Your task to perform on an android device: install app "Nova Launcher" Image 0: 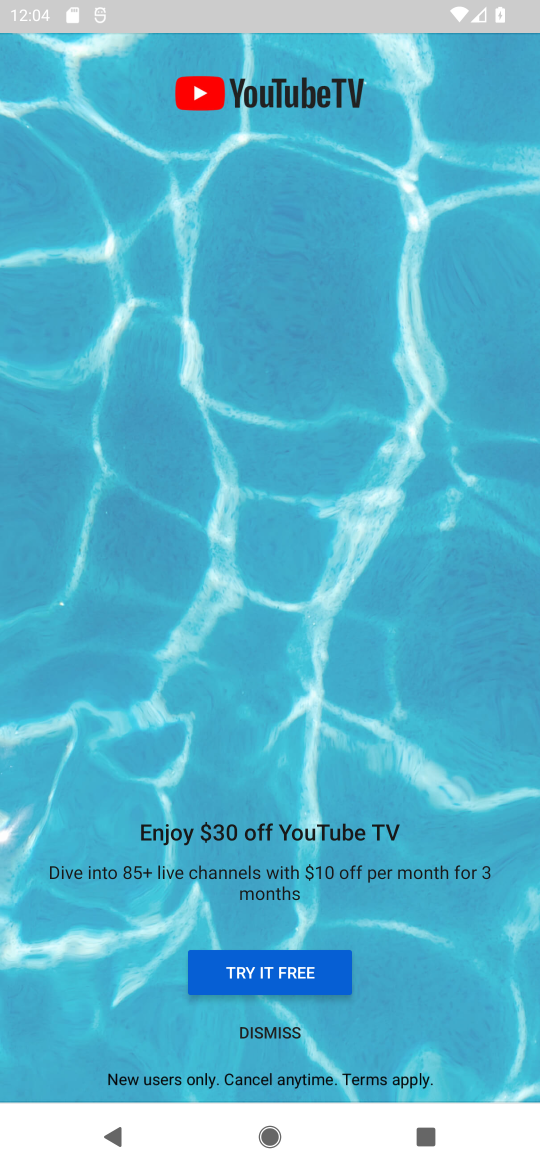
Step 0: press home button
Your task to perform on an android device: install app "Nova Launcher" Image 1: 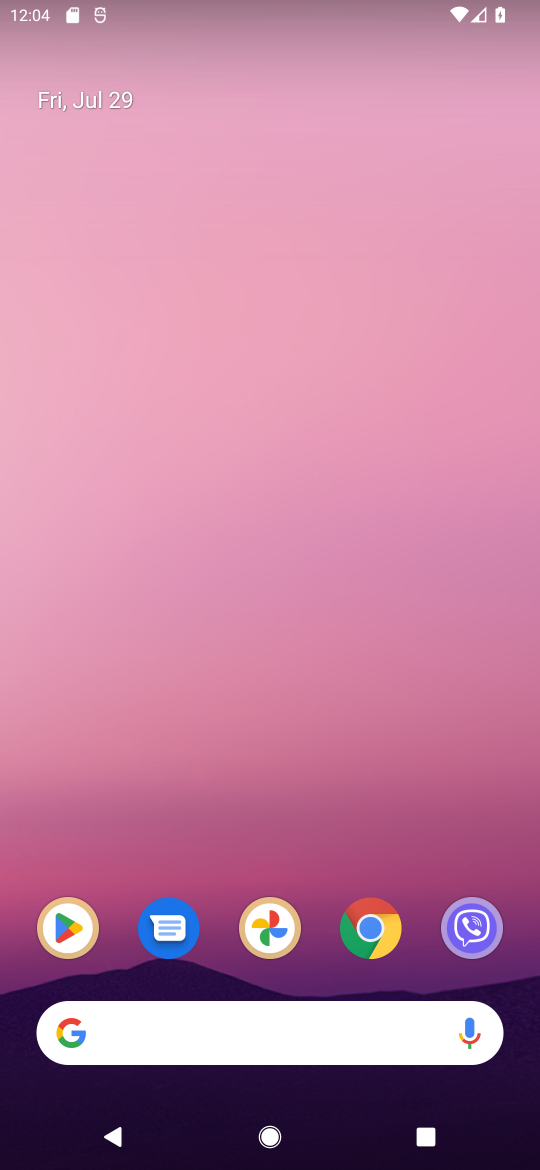
Step 1: drag from (411, 734) to (362, 86)
Your task to perform on an android device: install app "Nova Launcher" Image 2: 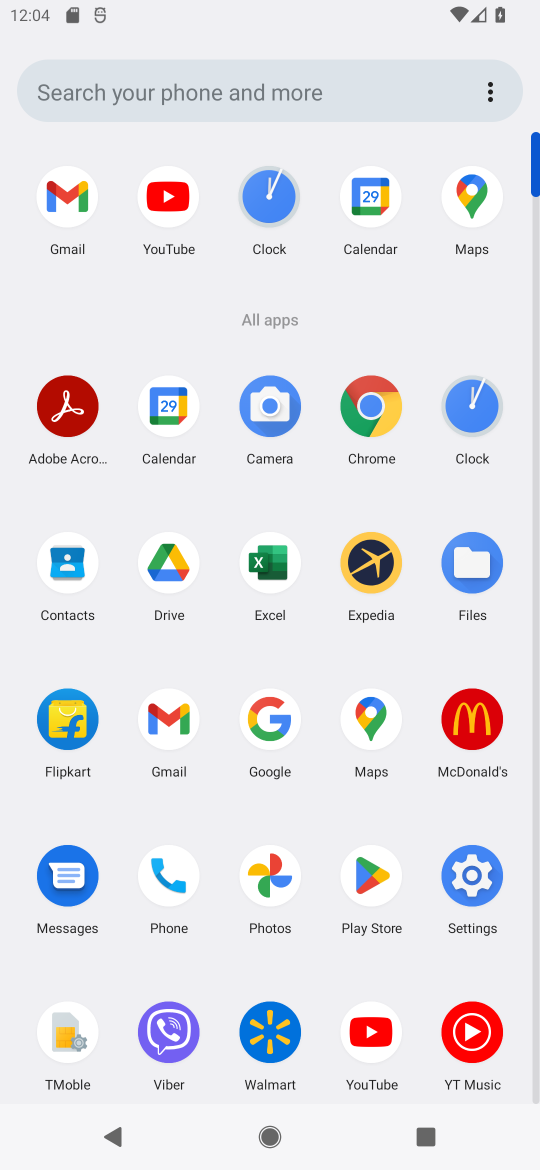
Step 2: click (358, 871)
Your task to perform on an android device: install app "Nova Launcher" Image 3: 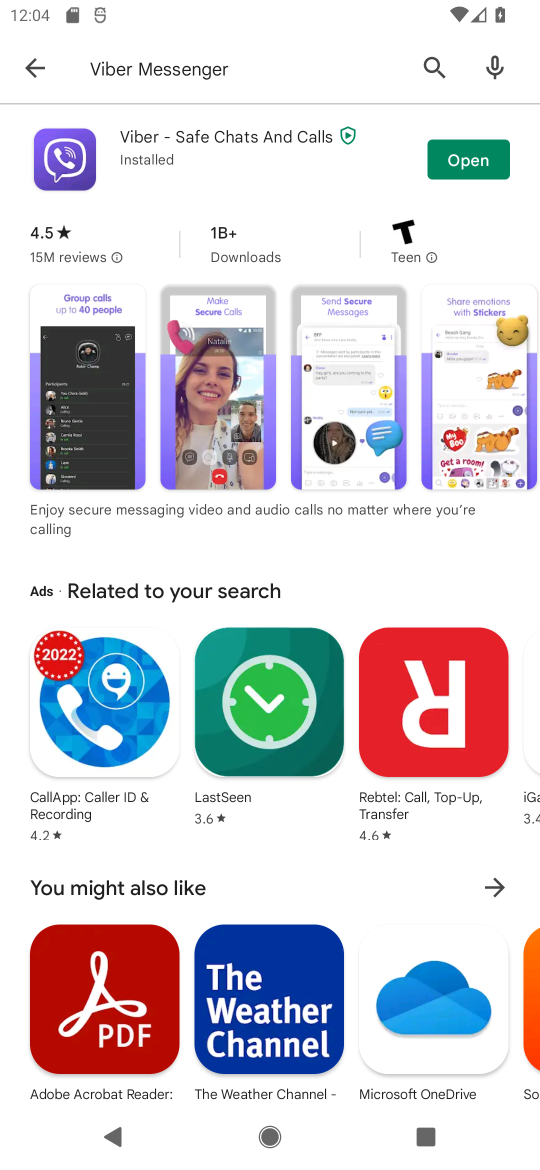
Step 3: click (215, 63)
Your task to perform on an android device: install app "Nova Launcher" Image 4: 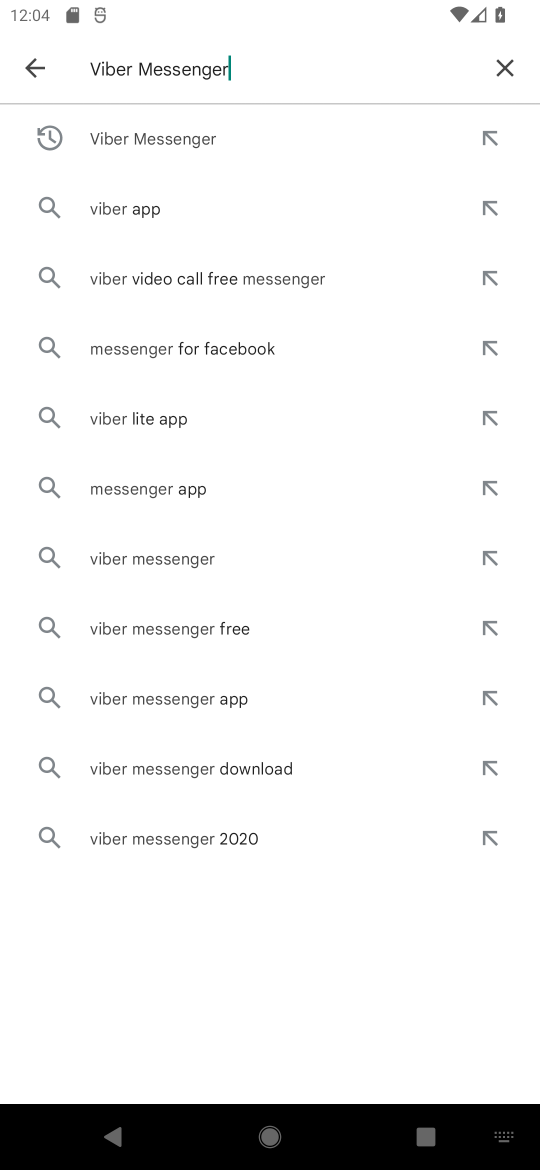
Step 4: click (513, 58)
Your task to perform on an android device: install app "Nova Launcher" Image 5: 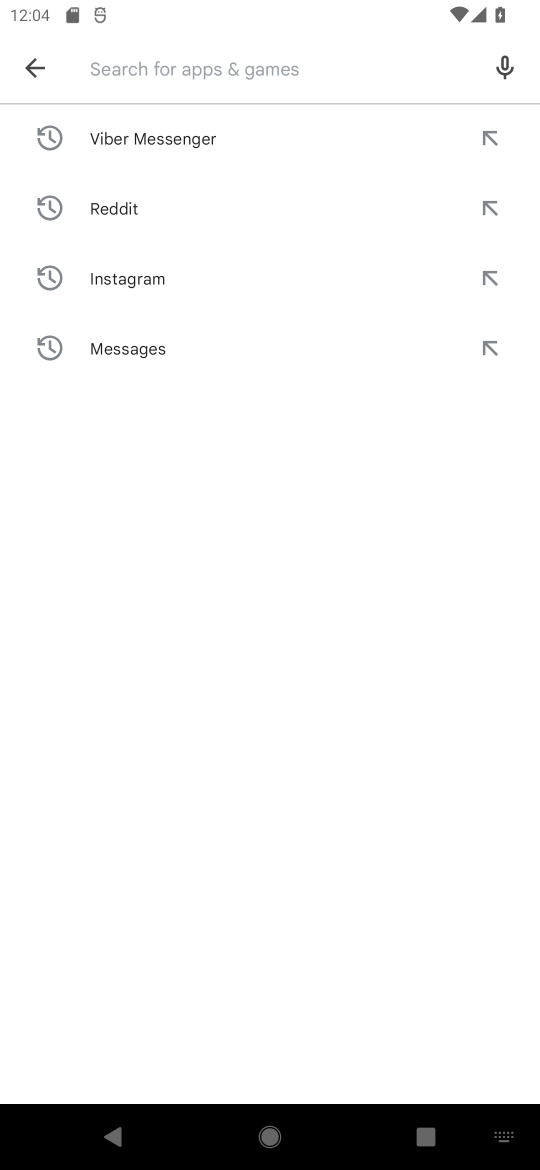
Step 5: type "Nova Launcher"
Your task to perform on an android device: install app "Nova Launcher" Image 6: 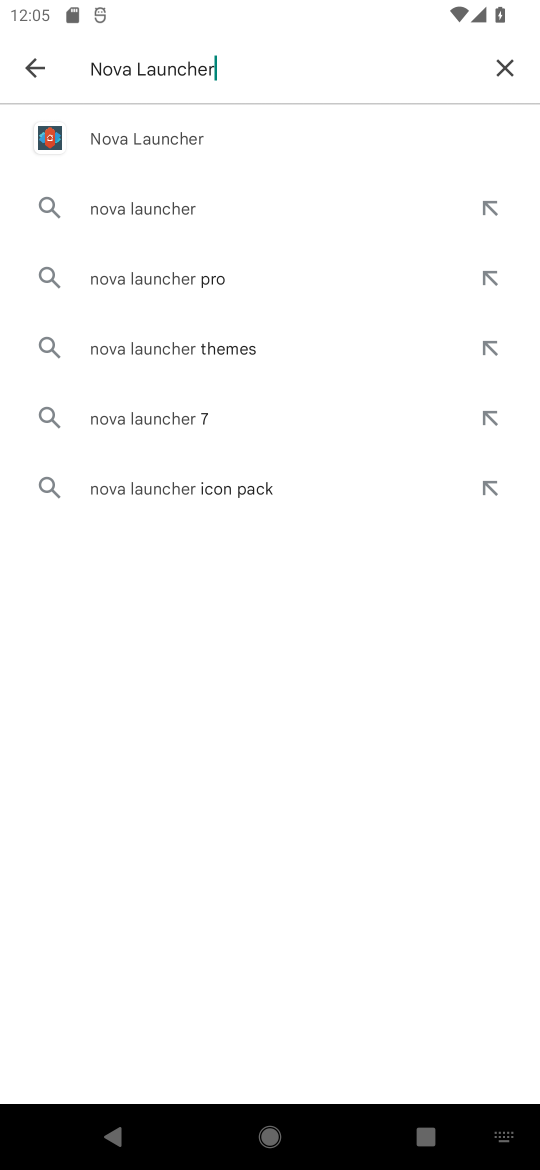
Step 6: press enter
Your task to perform on an android device: install app "Nova Launcher" Image 7: 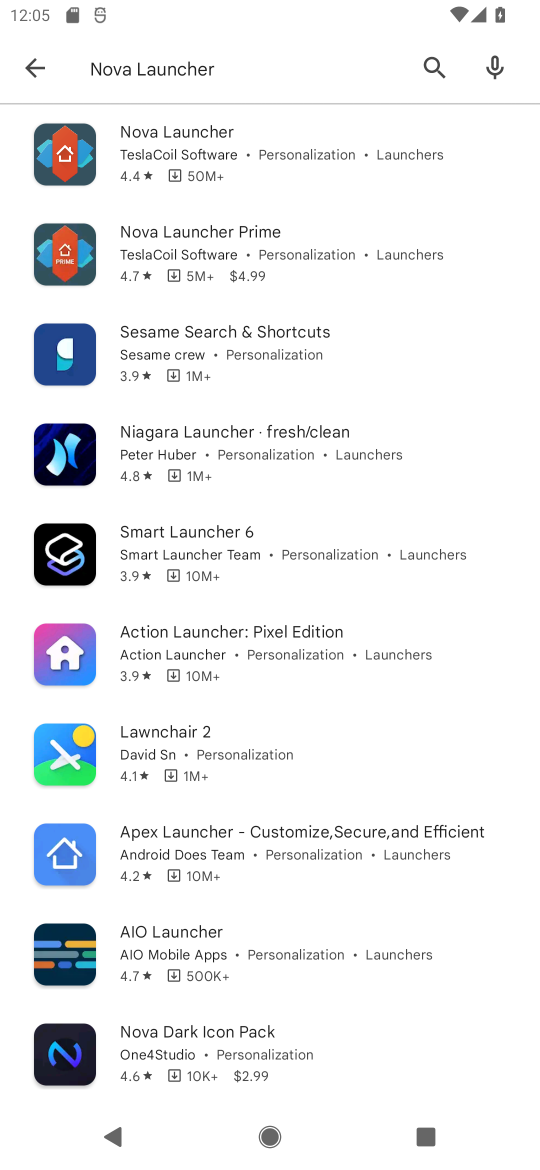
Step 7: click (191, 160)
Your task to perform on an android device: install app "Nova Launcher" Image 8: 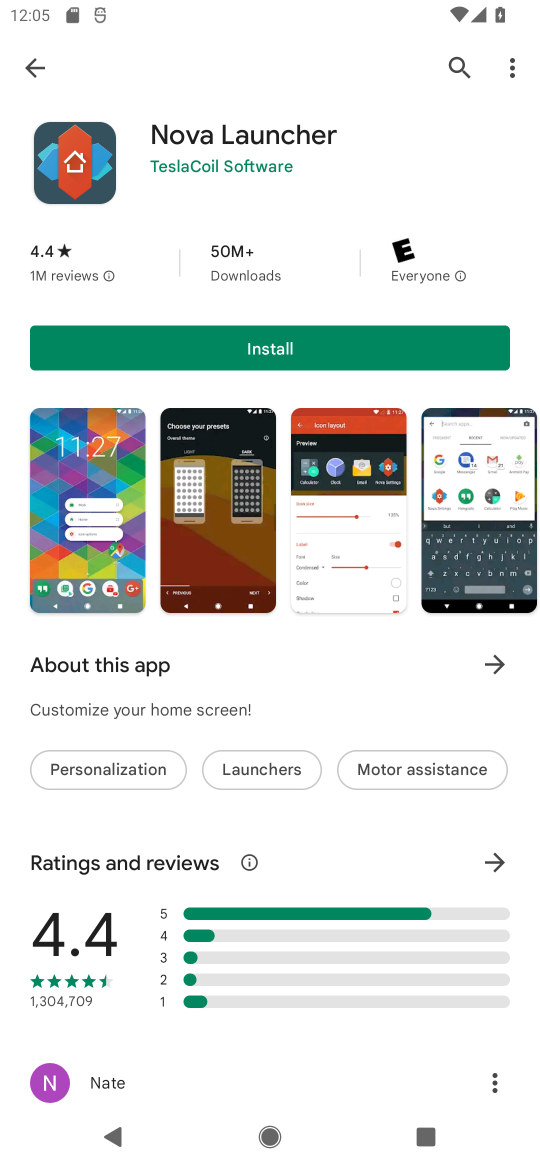
Step 8: click (358, 363)
Your task to perform on an android device: install app "Nova Launcher" Image 9: 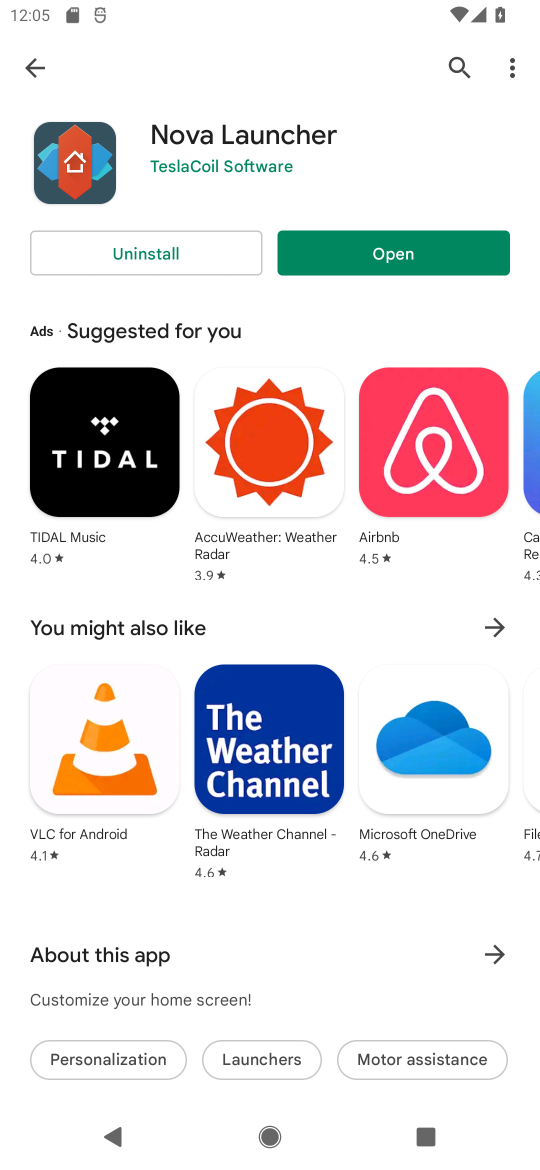
Step 9: task complete